Your task to perform on an android device: show emergency info Image 0: 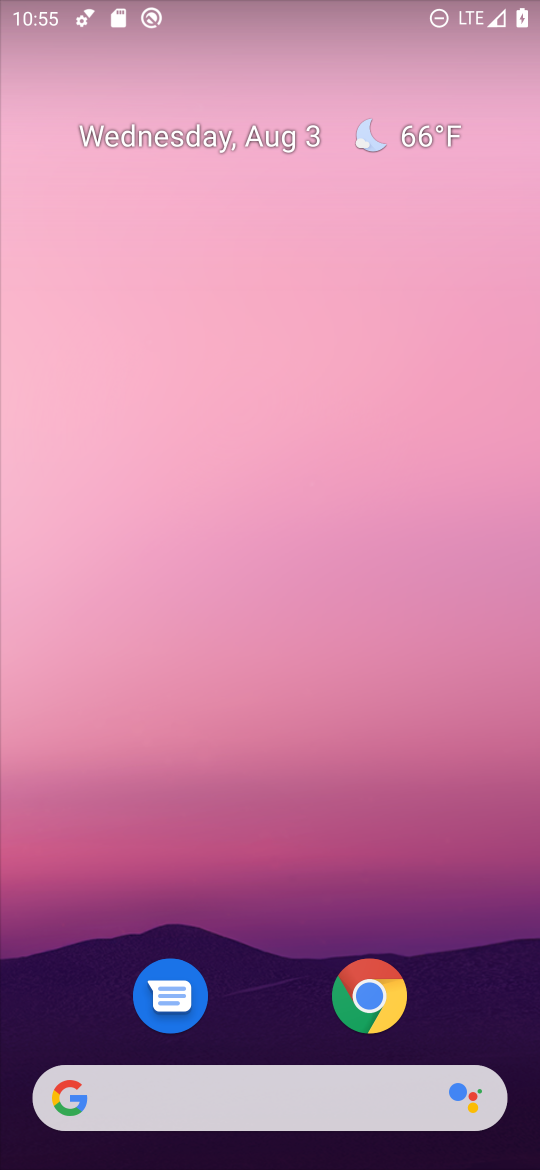
Step 0: press home button
Your task to perform on an android device: show emergency info Image 1: 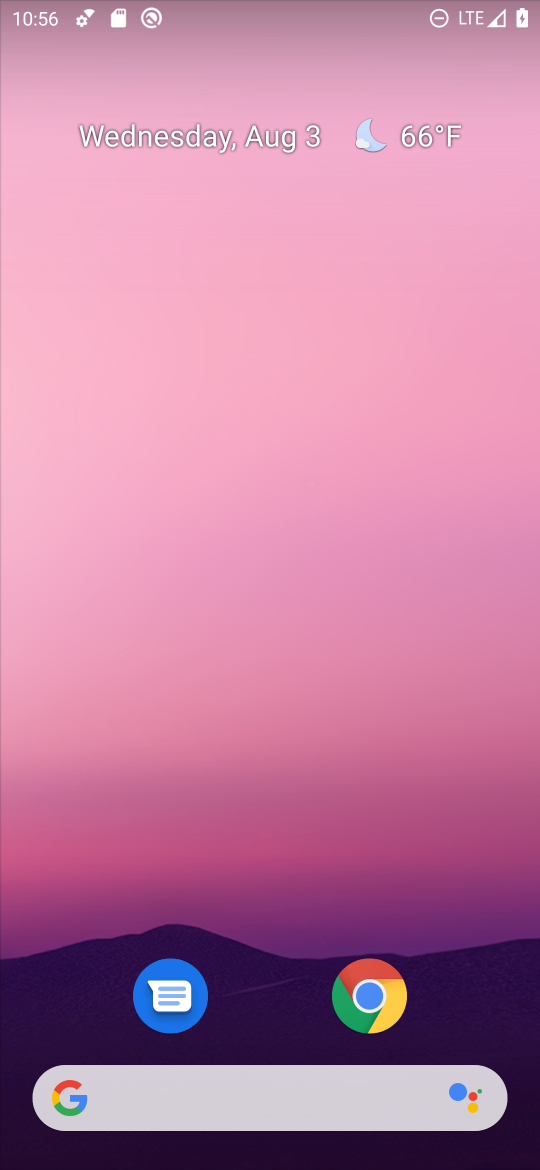
Step 1: drag from (290, 901) to (301, 2)
Your task to perform on an android device: show emergency info Image 2: 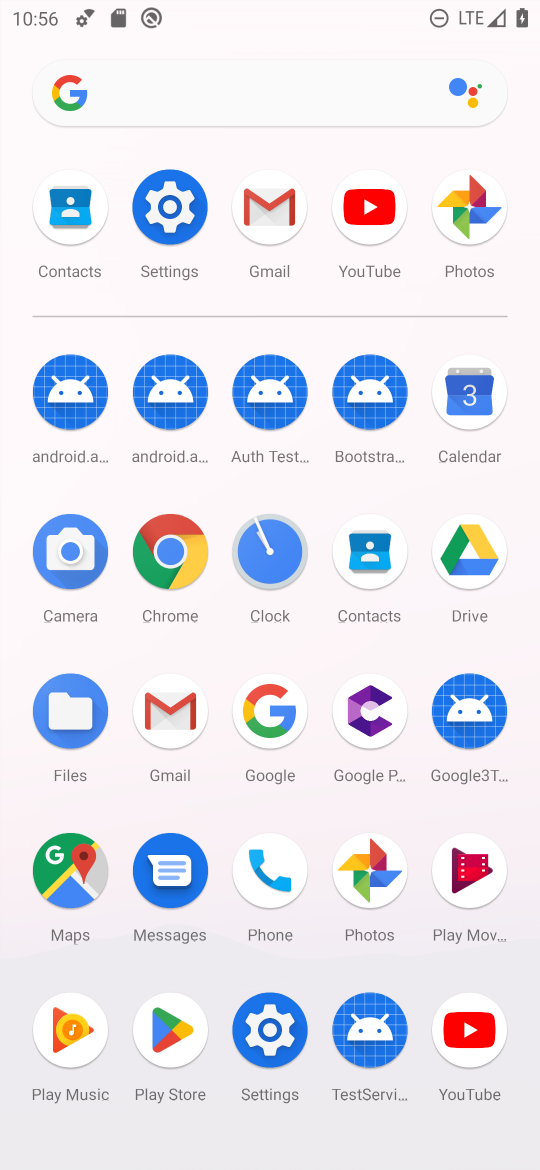
Step 2: click (169, 196)
Your task to perform on an android device: show emergency info Image 3: 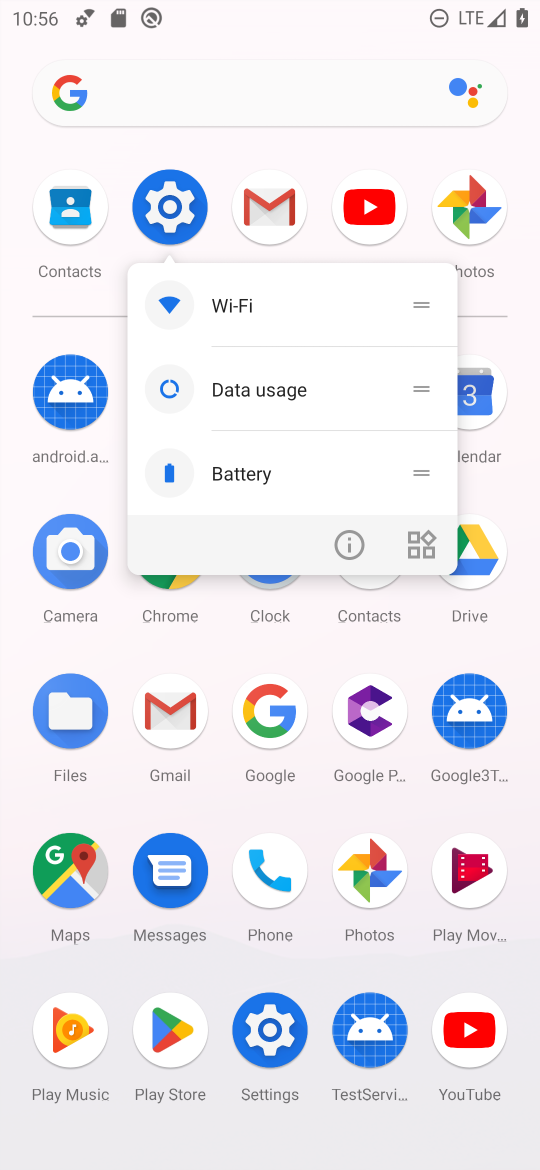
Step 3: click (172, 208)
Your task to perform on an android device: show emergency info Image 4: 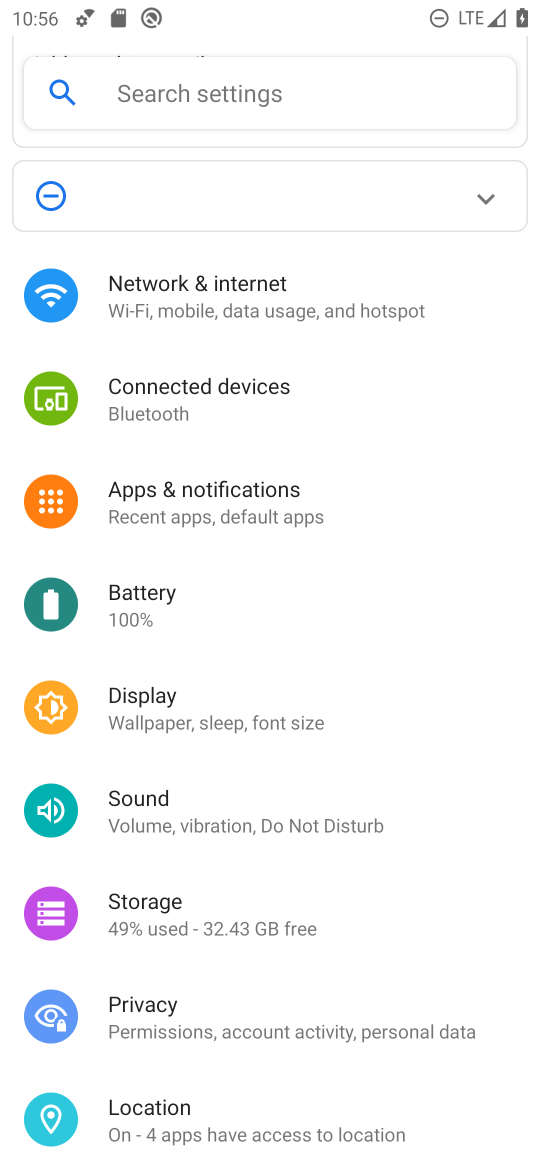
Step 4: drag from (289, 1061) to (310, 2)
Your task to perform on an android device: show emergency info Image 5: 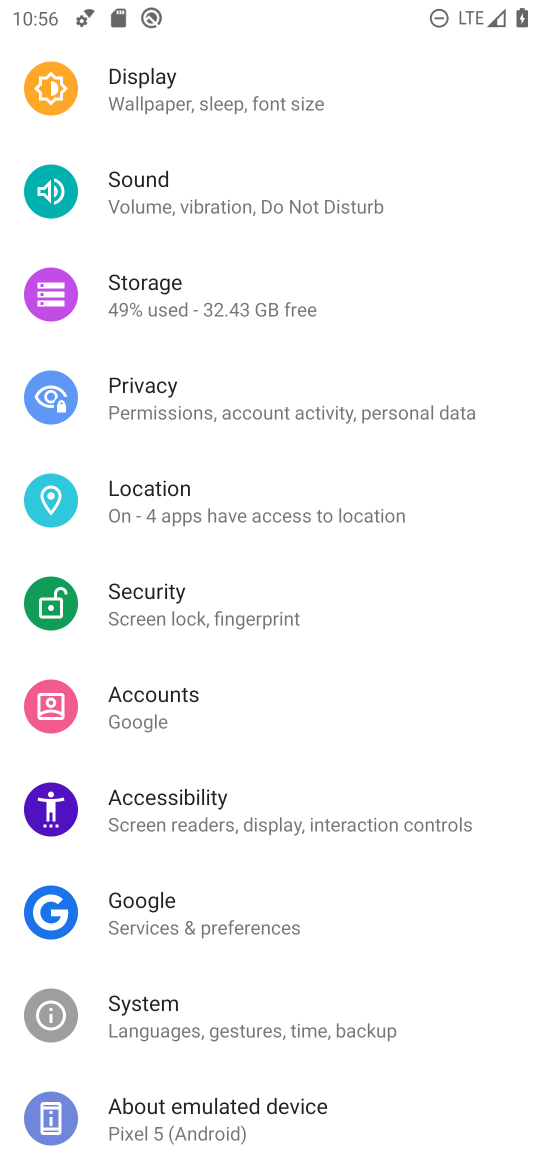
Step 5: click (246, 1119)
Your task to perform on an android device: show emergency info Image 6: 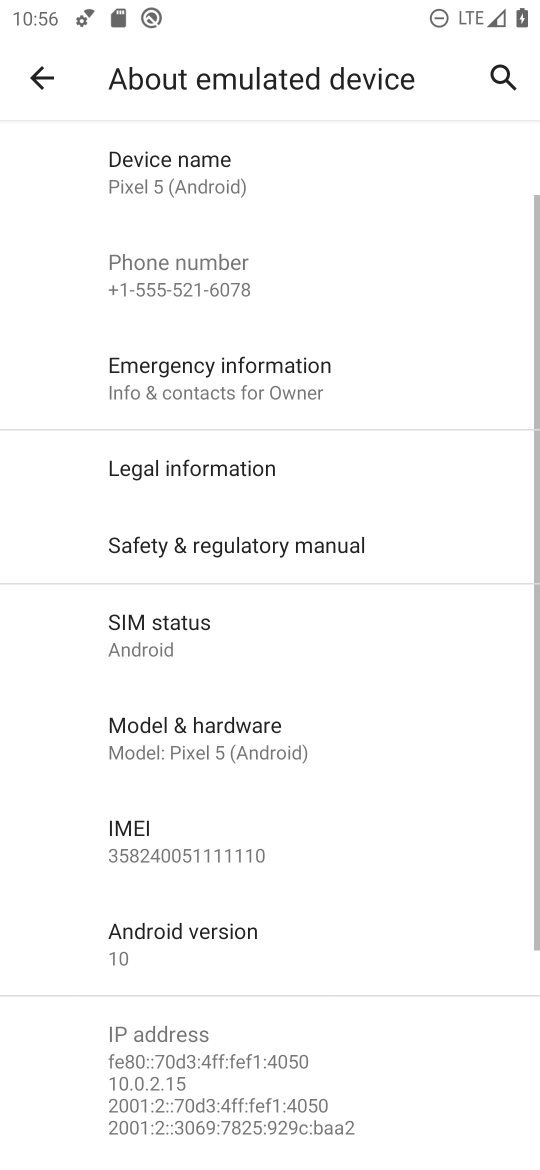
Step 6: click (210, 371)
Your task to perform on an android device: show emergency info Image 7: 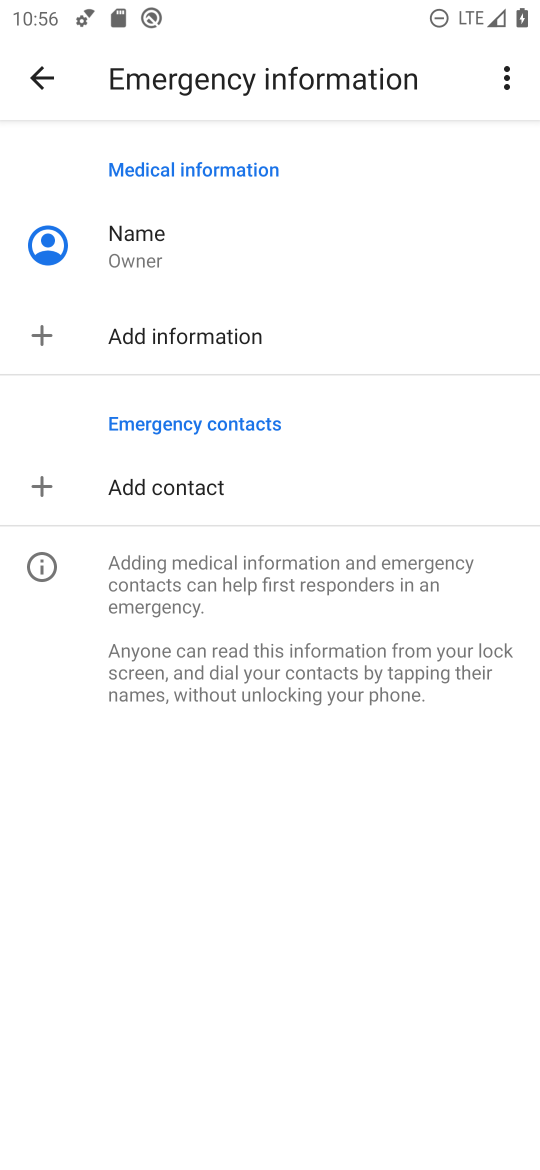
Step 7: task complete